Your task to perform on an android device: Open CNN.com Image 0: 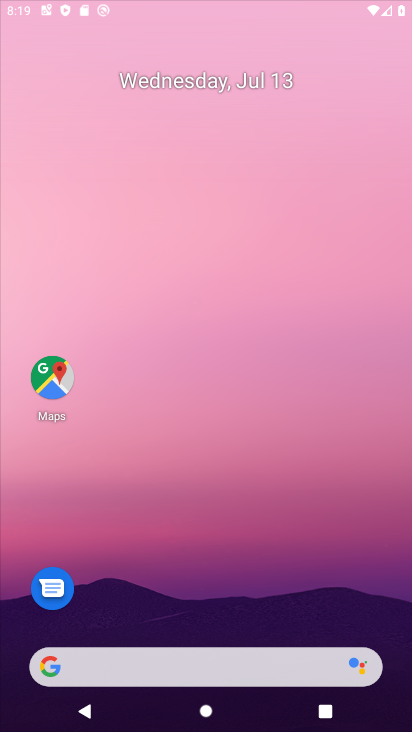
Step 0: drag from (151, 529) to (272, 52)
Your task to perform on an android device: Open CNN.com Image 1: 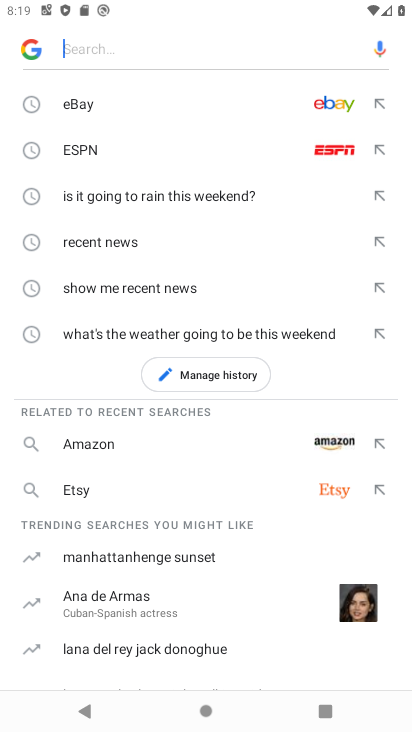
Step 1: type "cnn.com"
Your task to perform on an android device: Open CNN.com Image 2: 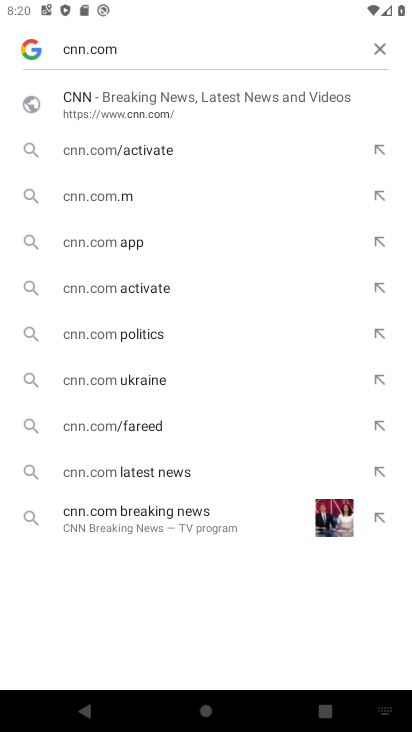
Step 2: click (144, 110)
Your task to perform on an android device: Open CNN.com Image 3: 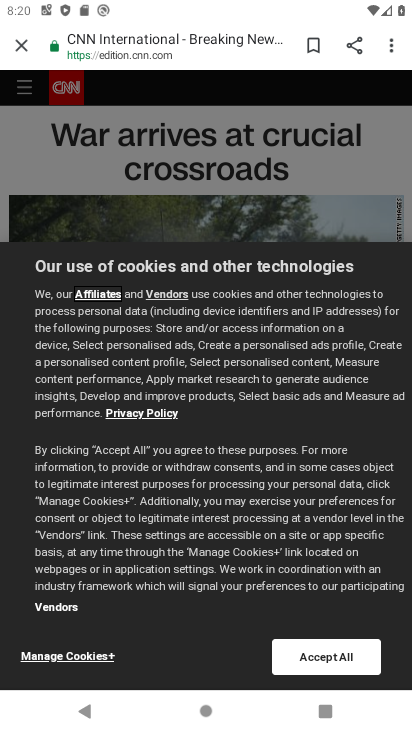
Step 3: task complete